Your task to perform on an android device: turn on the 24-hour format for clock Image 0: 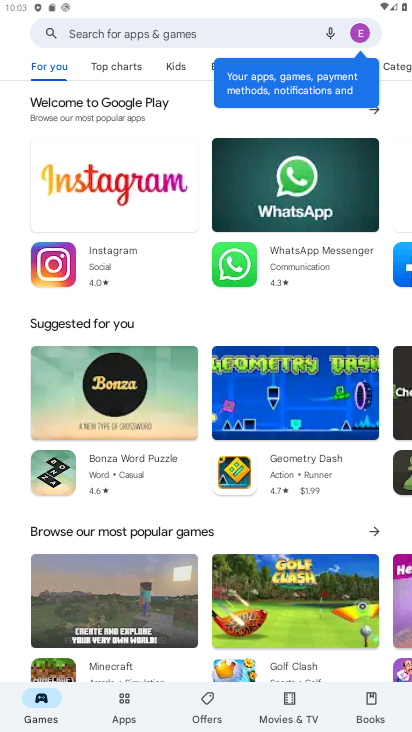
Step 0: press home button
Your task to perform on an android device: turn on the 24-hour format for clock Image 1: 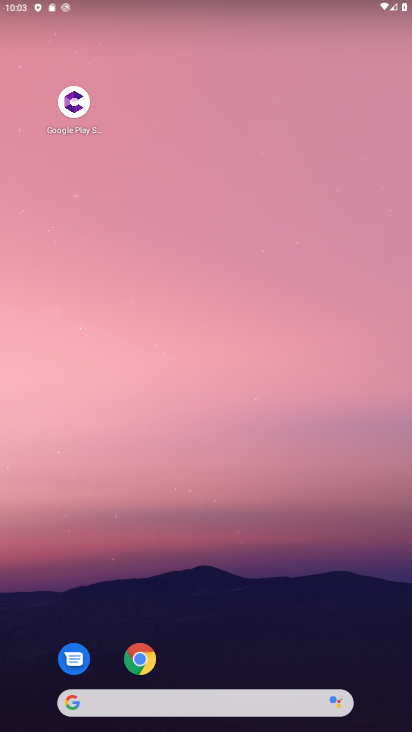
Step 1: drag from (276, 641) to (271, 249)
Your task to perform on an android device: turn on the 24-hour format for clock Image 2: 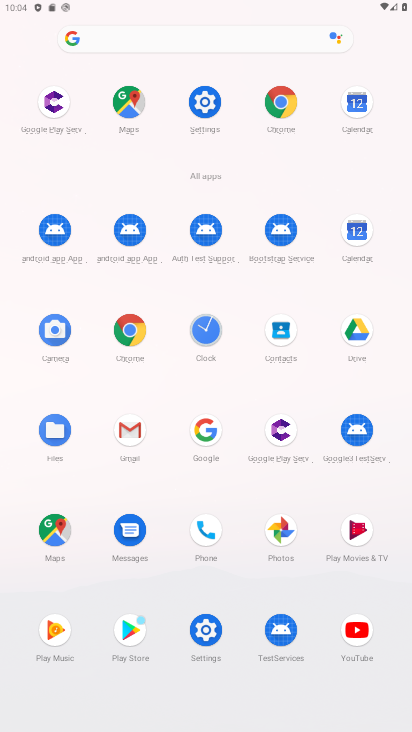
Step 2: click (211, 333)
Your task to perform on an android device: turn on the 24-hour format for clock Image 3: 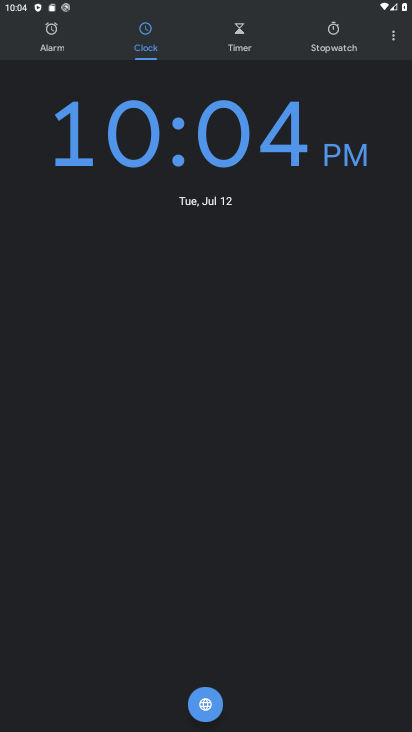
Step 3: click (391, 40)
Your task to perform on an android device: turn on the 24-hour format for clock Image 4: 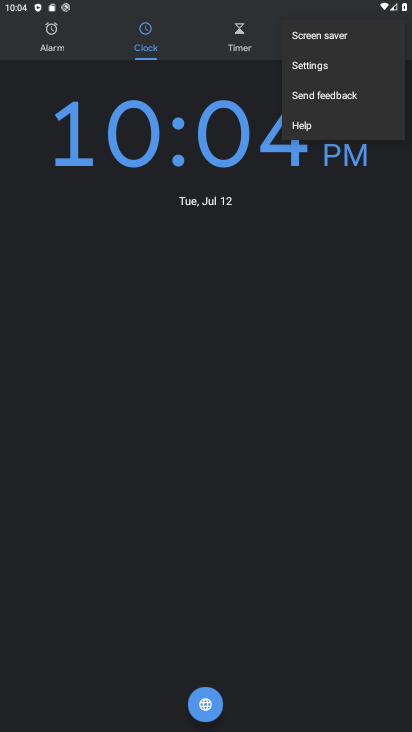
Step 4: click (318, 58)
Your task to perform on an android device: turn on the 24-hour format for clock Image 5: 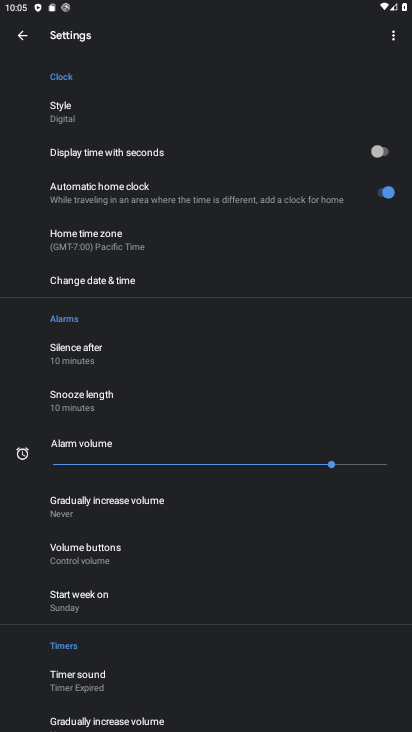
Step 5: click (127, 282)
Your task to perform on an android device: turn on the 24-hour format for clock Image 6: 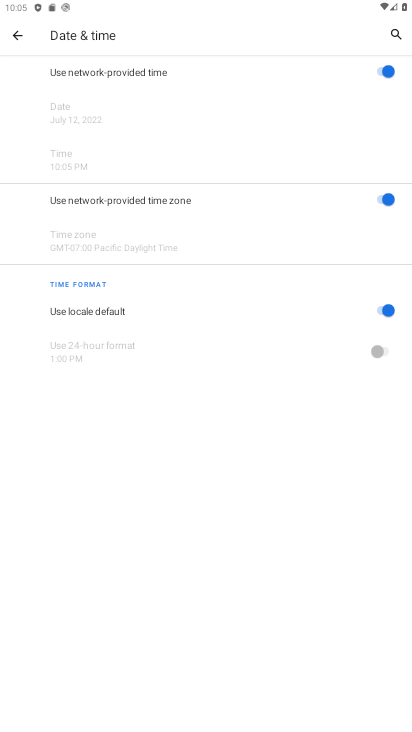
Step 6: click (385, 306)
Your task to perform on an android device: turn on the 24-hour format for clock Image 7: 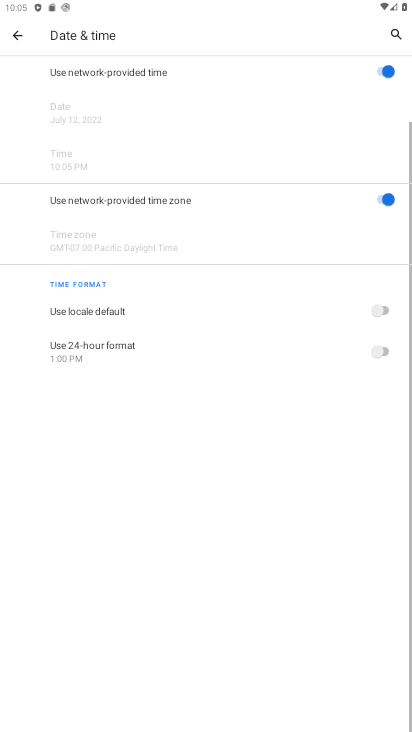
Step 7: click (377, 354)
Your task to perform on an android device: turn on the 24-hour format for clock Image 8: 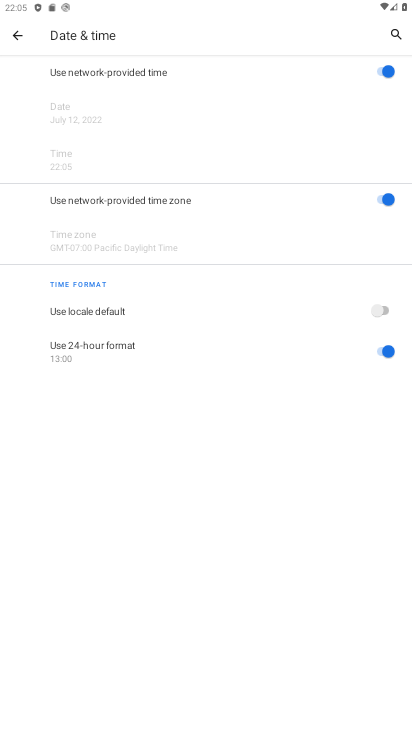
Step 8: task complete